Your task to perform on an android device: Is it going to rain this weekend? Image 0: 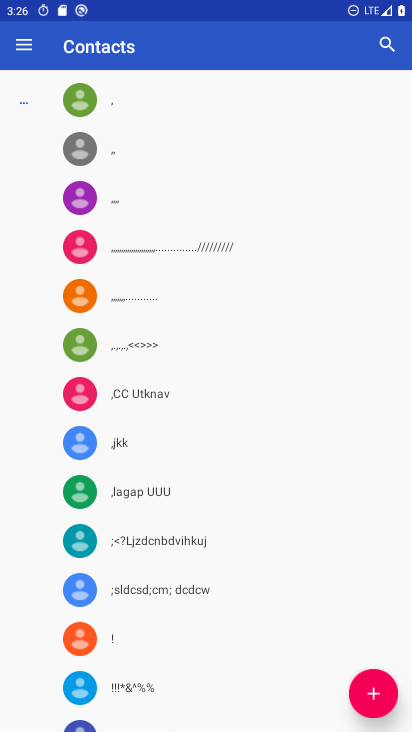
Step 0: drag from (155, 586) to (340, 178)
Your task to perform on an android device: Is it going to rain this weekend? Image 1: 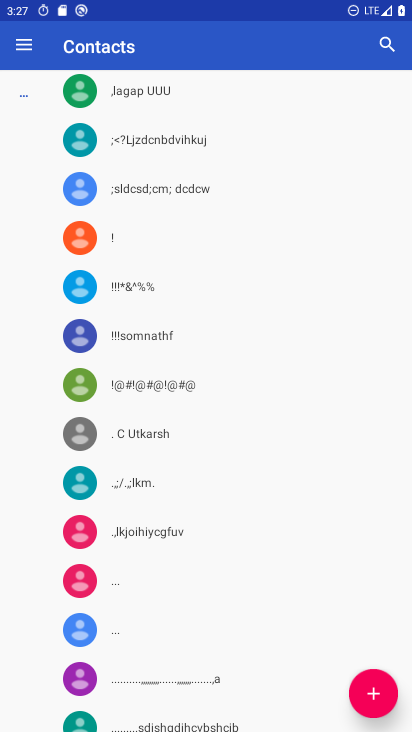
Step 1: drag from (195, 601) to (247, 177)
Your task to perform on an android device: Is it going to rain this weekend? Image 2: 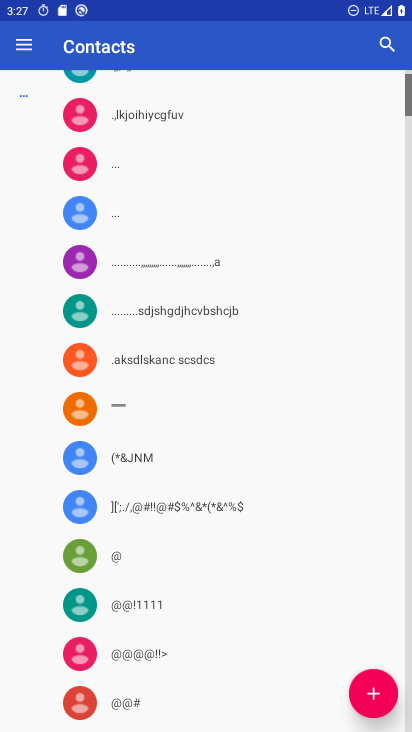
Step 2: press home button
Your task to perform on an android device: Is it going to rain this weekend? Image 3: 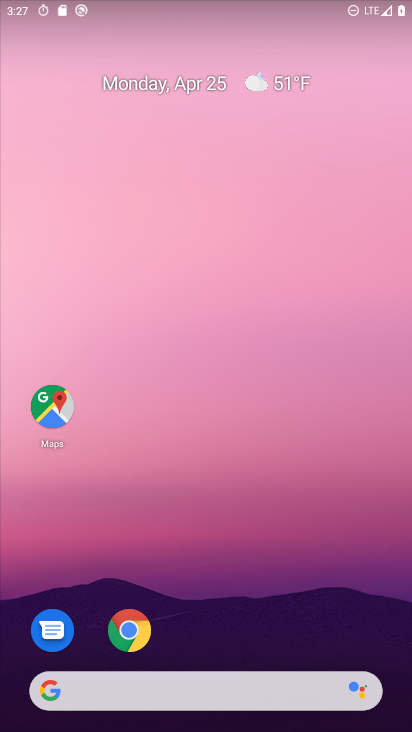
Step 3: drag from (202, 621) to (255, 68)
Your task to perform on an android device: Is it going to rain this weekend? Image 4: 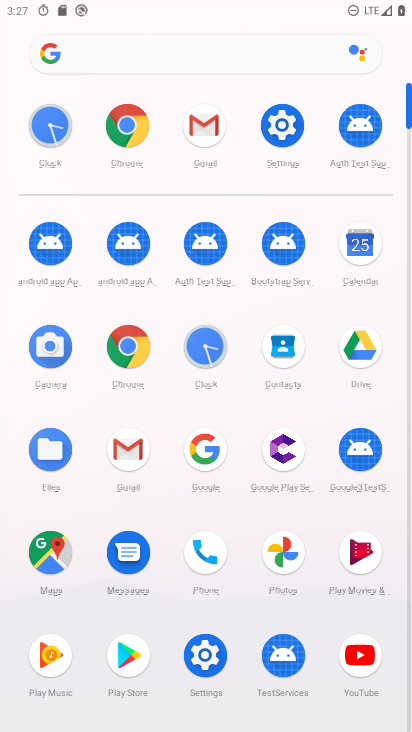
Step 4: click (196, 58)
Your task to perform on an android device: Is it going to rain this weekend? Image 5: 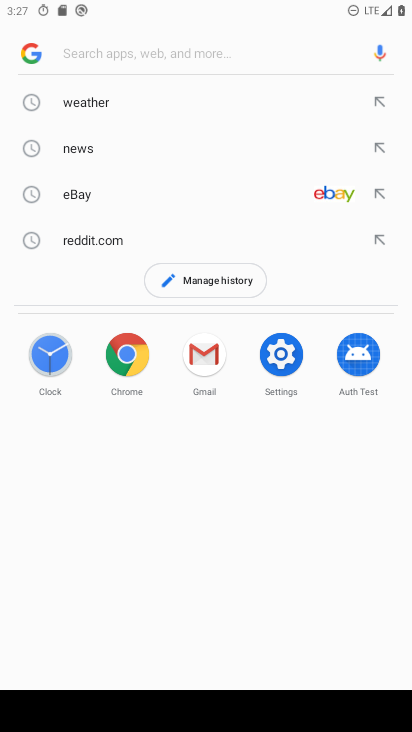
Step 5: type "rain weekend"
Your task to perform on an android device: Is it going to rain this weekend? Image 6: 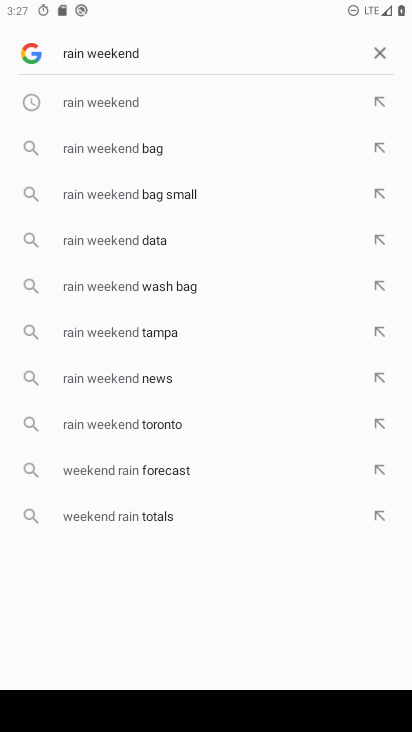
Step 6: click (145, 91)
Your task to perform on an android device: Is it going to rain this weekend? Image 7: 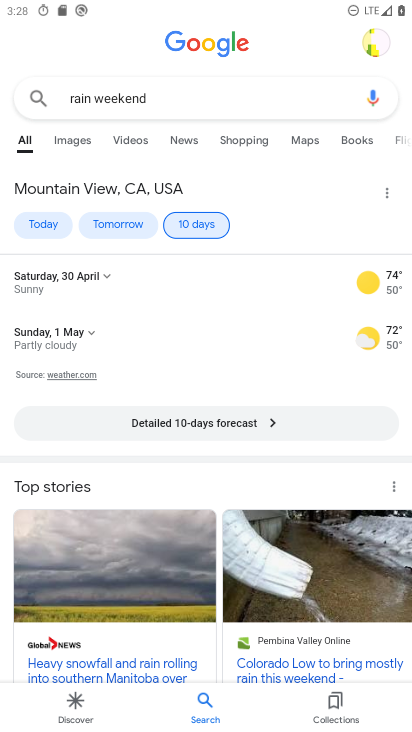
Step 7: task complete